Your task to perform on an android device: turn notification dots on Image 0: 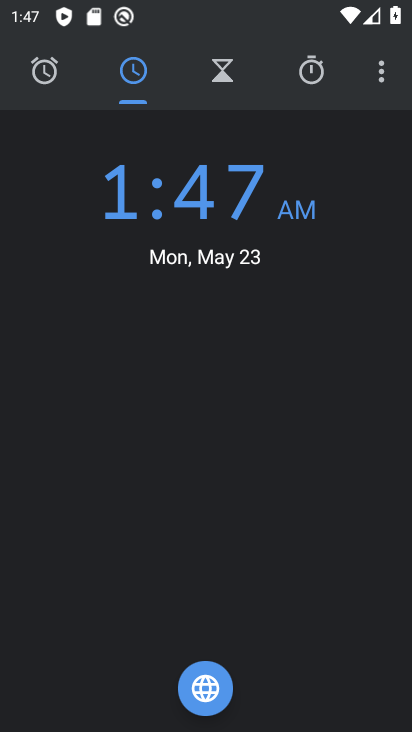
Step 0: press home button
Your task to perform on an android device: turn notification dots on Image 1: 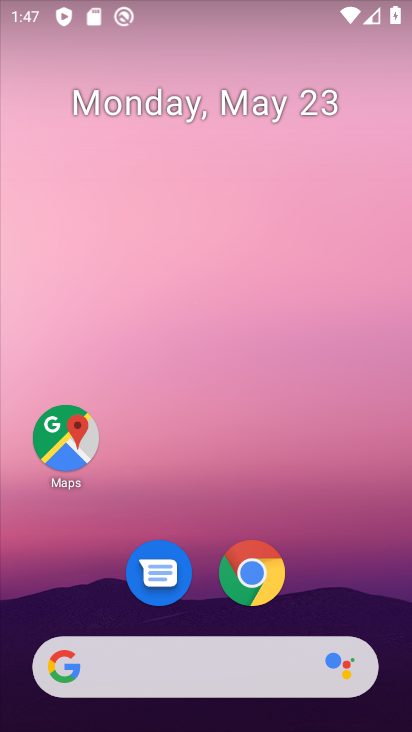
Step 1: drag from (325, 496) to (289, 0)
Your task to perform on an android device: turn notification dots on Image 2: 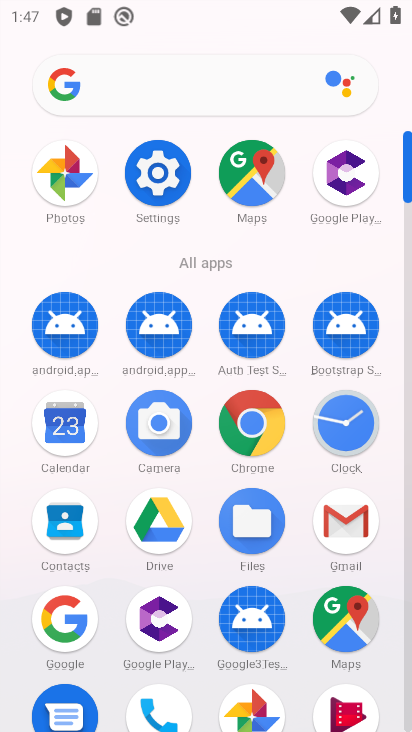
Step 2: click (166, 175)
Your task to perform on an android device: turn notification dots on Image 3: 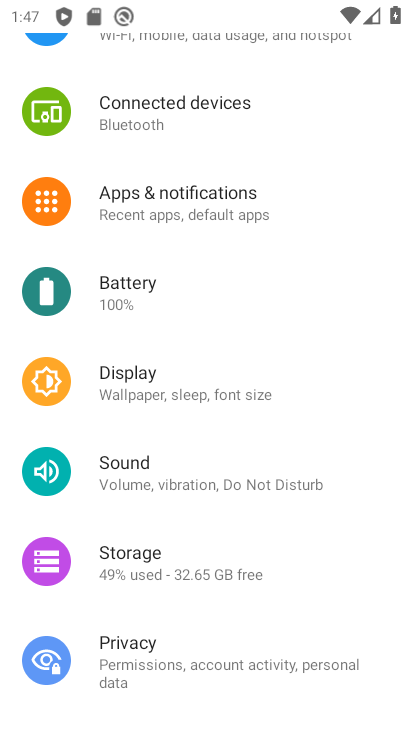
Step 3: click (184, 218)
Your task to perform on an android device: turn notification dots on Image 4: 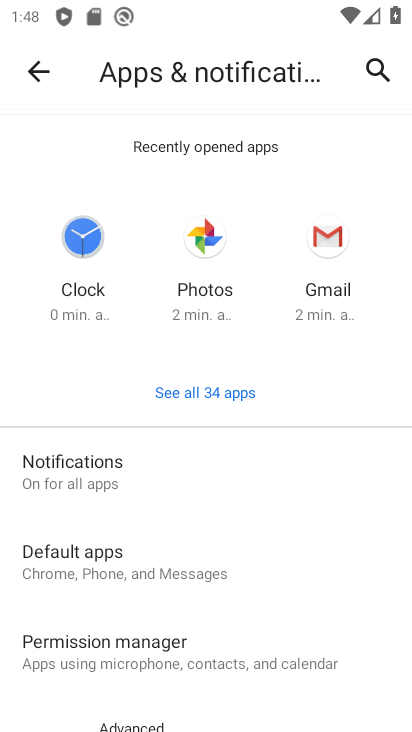
Step 4: click (90, 474)
Your task to perform on an android device: turn notification dots on Image 5: 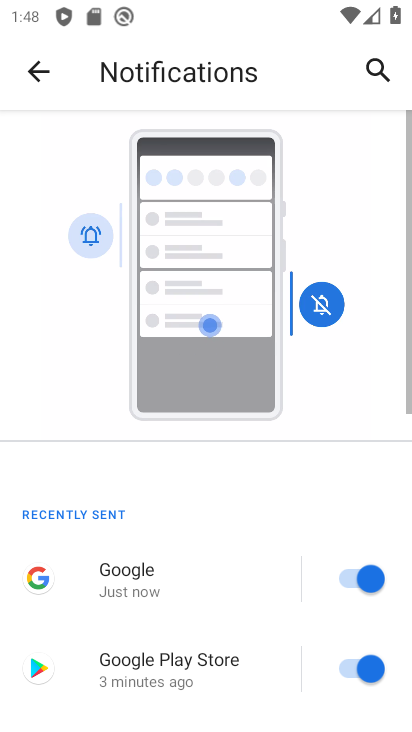
Step 5: drag from (238, 595) to (287, 113)
Your task to perform on an android device: turn notification dots on Image 6: 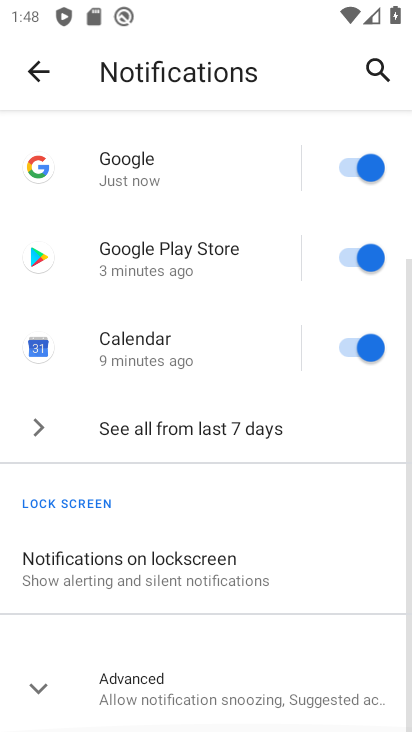
Step 6: drag from (222, 623) to (254, 249)
Your task to perform on an android device: turn notification dots on Image 7: 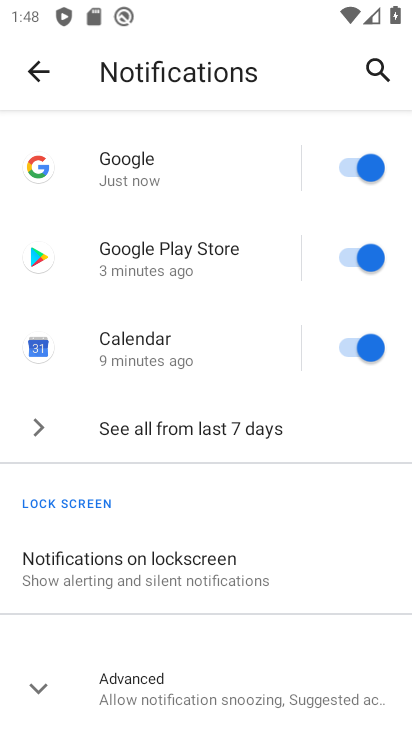
Step 7: click (115, 688)
Your task to perform on an android device: turn notification dots on Image 8: 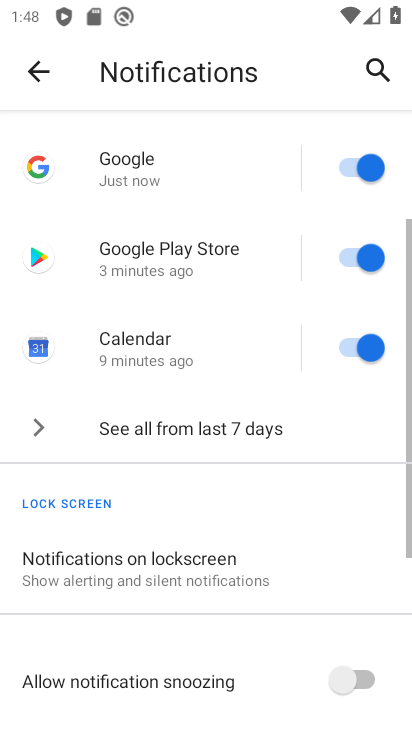
Step 8: task complete